Your task to perform on an android device: delete location history Image 0: 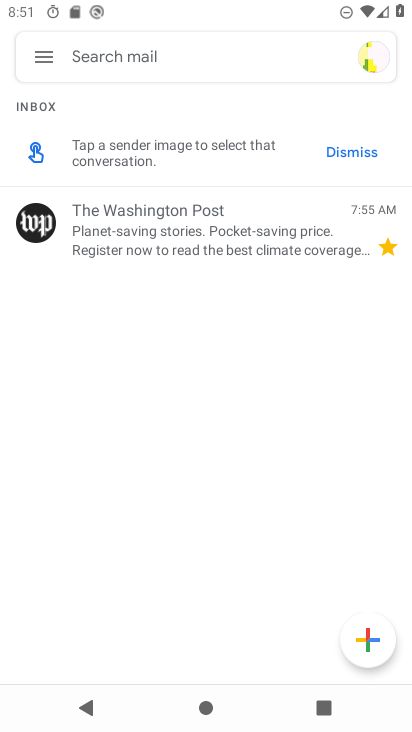
Step 0: press home button
Your task to perform on an android device: delete location history Image 1: 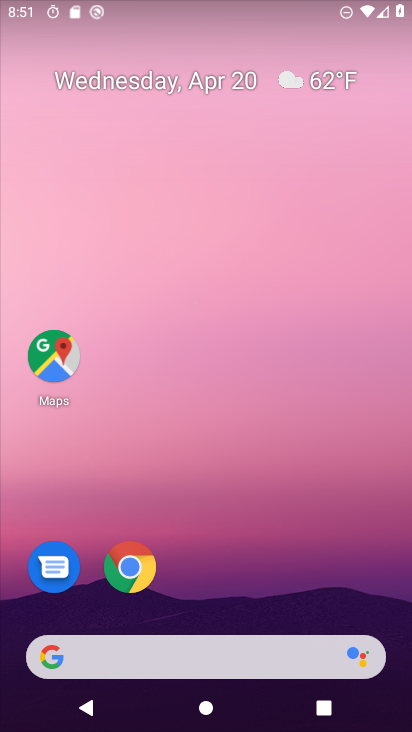
Step 1: click (46, 359)
Your task to perform on an android device: delete location history Image 2: 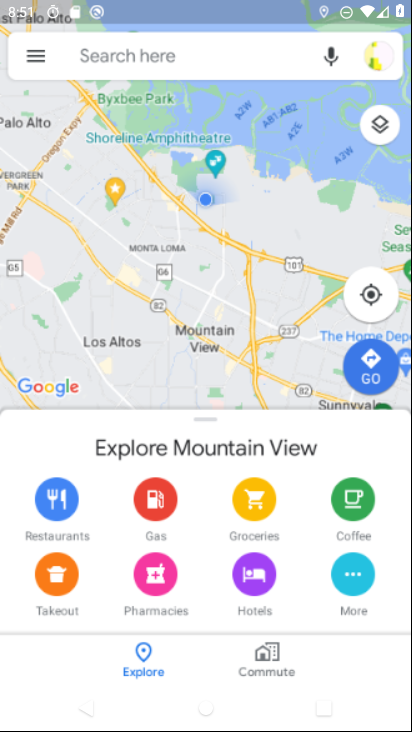
Step 2: click (38, 58)
Your task to perform on an android device: delete location history Image 3: 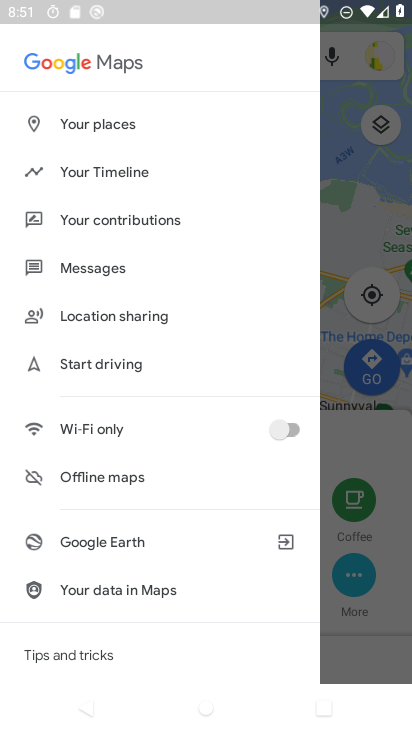
Step 3: click (99, 181)
Your task to perform on an android device: delete location history Image 4: 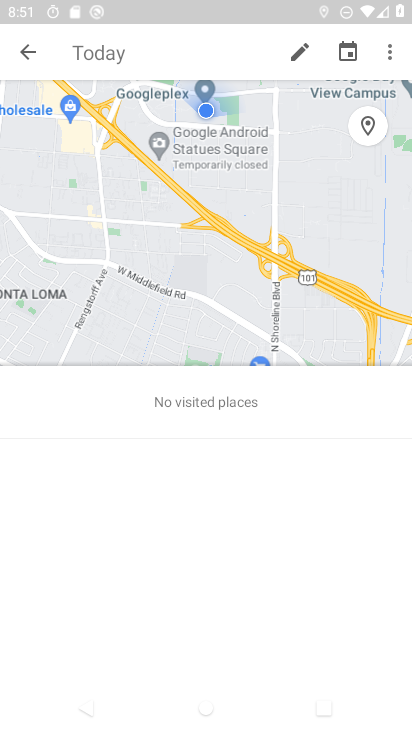
Step 4: click (389, 50)
Your task to perform on an android device: delete location history Image 5: 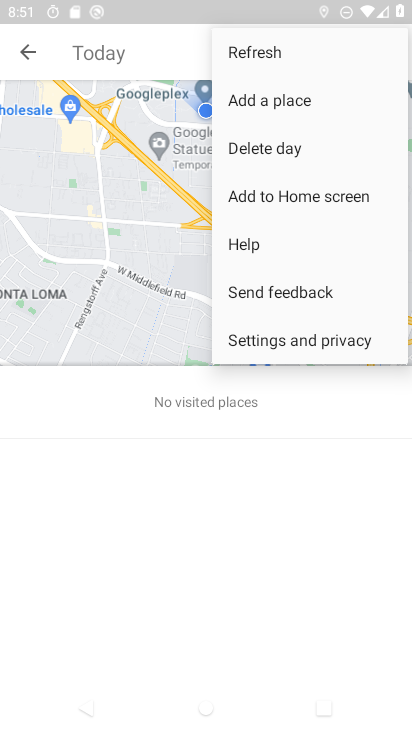
Step 5: click (289, 339)
Your task to perform on an android device: delete location history Image 6: 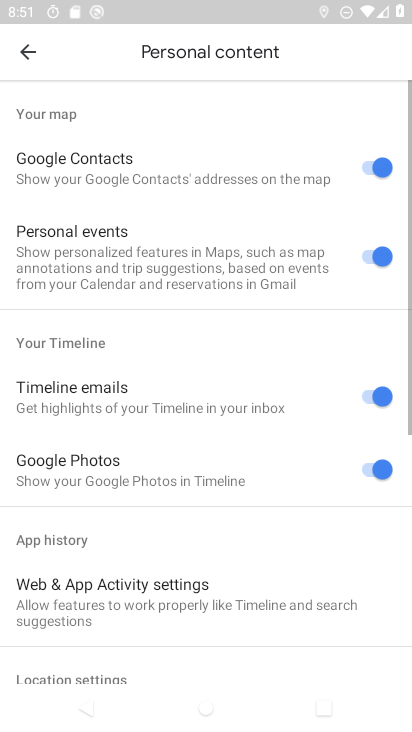
Step 6: drag from (243, 500) to (237, 81)
Your task to perform on an android device: delete location history Image 7: 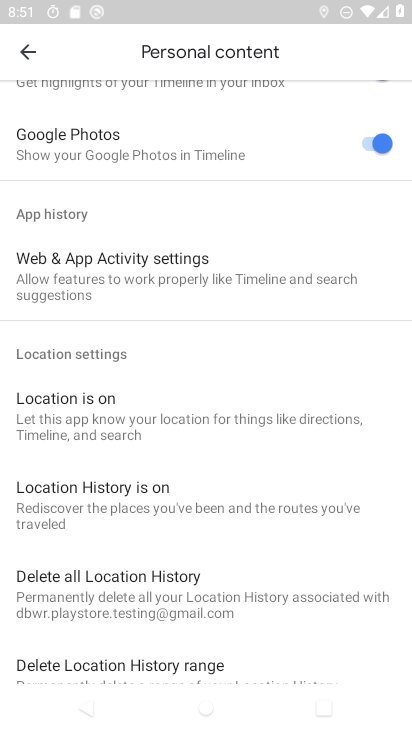
Step 7: click (122, 600)
Your task to perform on an android device: delete location history Image 8: 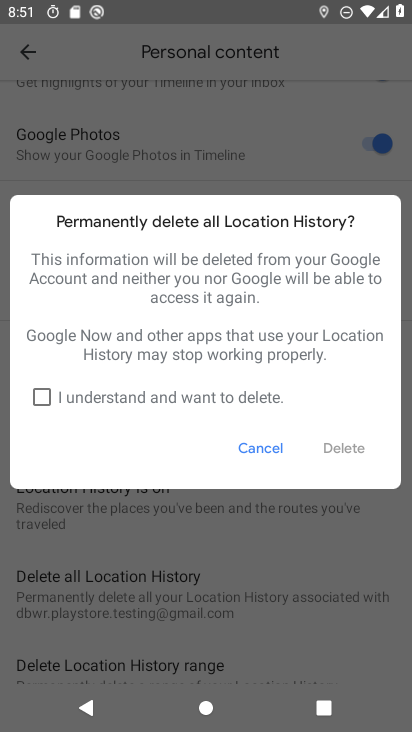
Step 8: click (28, 393)
Your task to perform on an android device: delete location history Image 9: 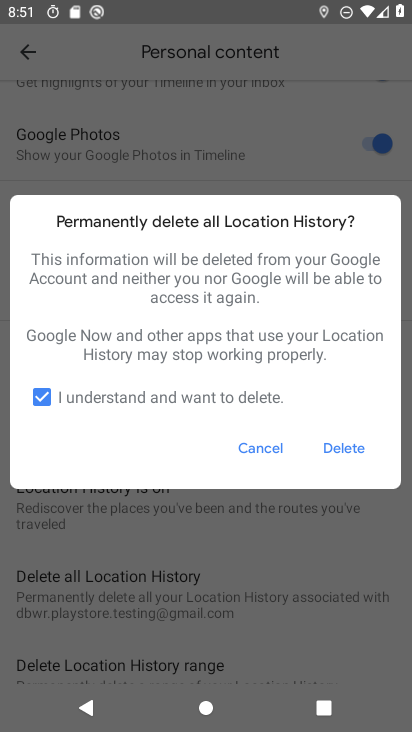
Step 9: click (355, 449)
Your task to perform on an android device: delete location history Image 10: 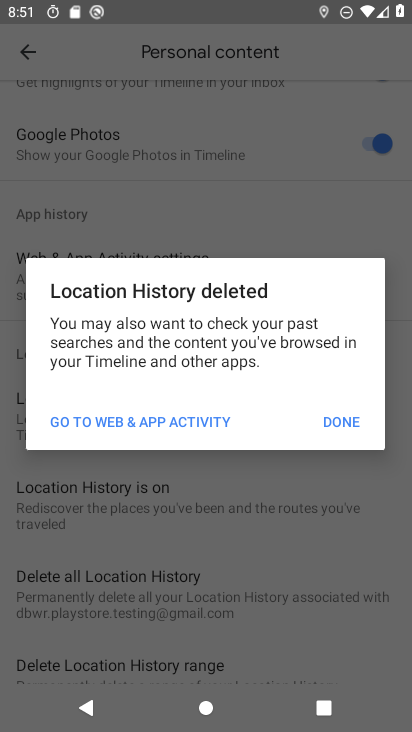
Step 10: click (355, 429)
Your task to perform on an android device: delete location history Image 11: 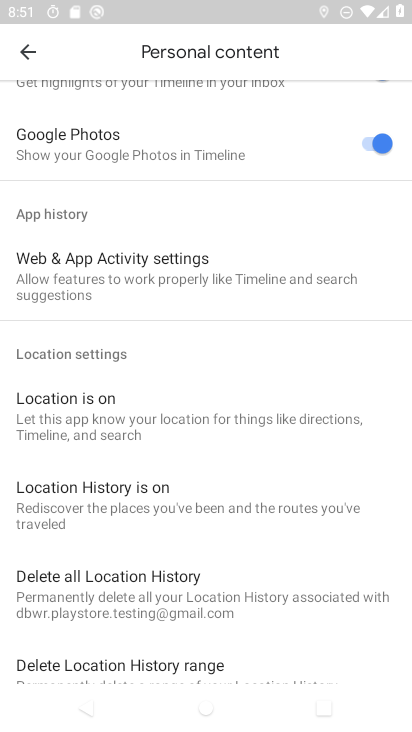
Step 11: task complete